Your task to perform on an android device: turn off priority inbox in the gmail app Image 0: 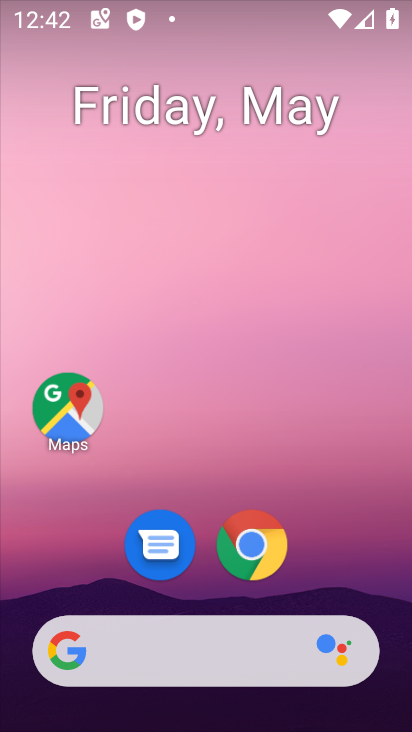
Step 0: drag from (336, 518) to (340, 277)
Your task to perform on an android device: turn off priority inbox in the gmail app Image 1: 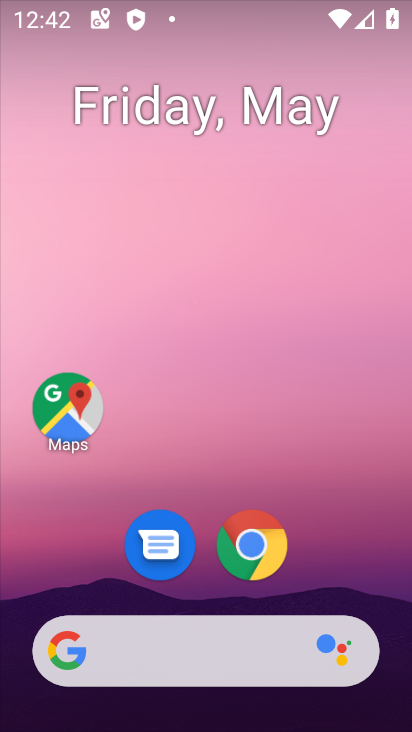
Step 1: drag from (332, 550) to (325, 183)
Your task to perform on an android device: turn off priority inbox in the gmail app Image 2: 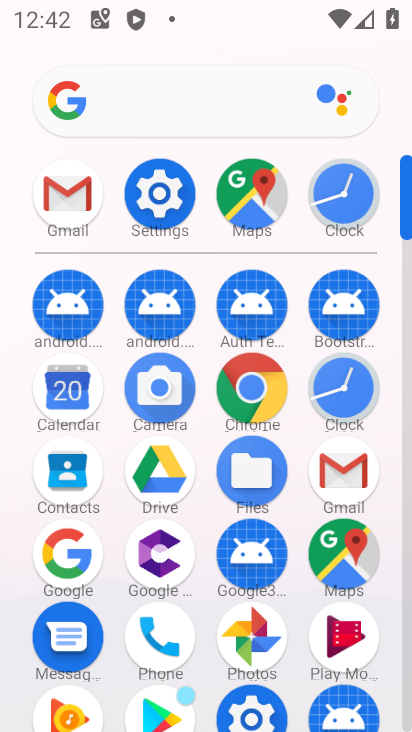
Step 2: click (73, 195)
Your task to perform on an android device: turn off priority inbox in the gmail app Image 3: 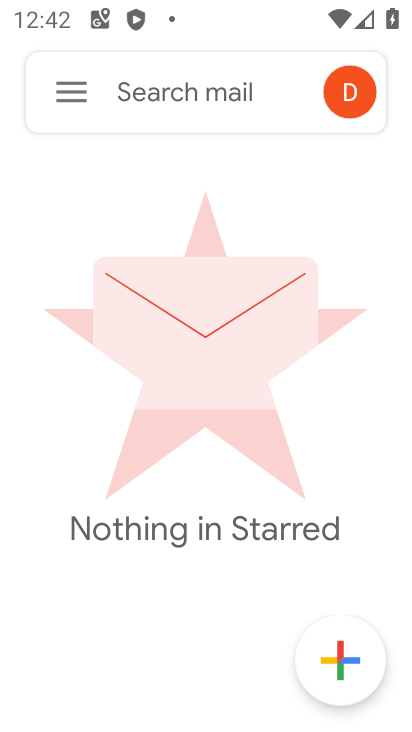
Step 3: click (69, 105)
Your task to perform on an android device: turn off priority inbox in the gmail app Image 4: 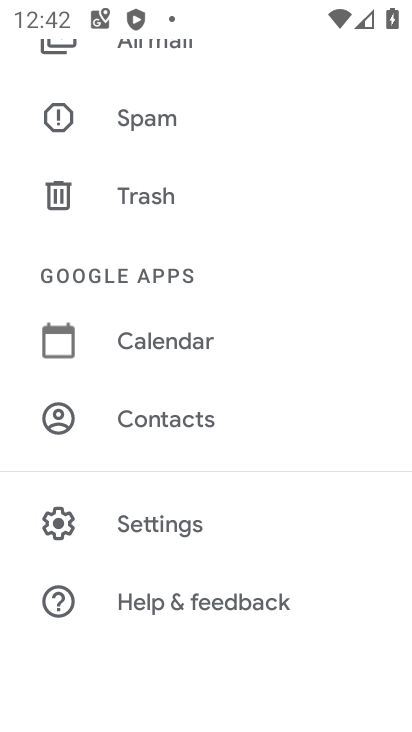
Step 4: task complete